Your task to perform on an android device: toggle sleep mode Image 0: 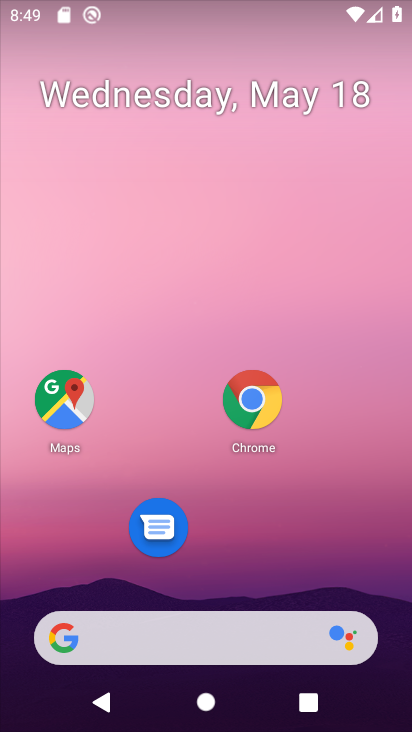
Step 0: drag from (267, 571) to (242, 51)
Your task to perform on an android device: toggle sleep mode Image 1: 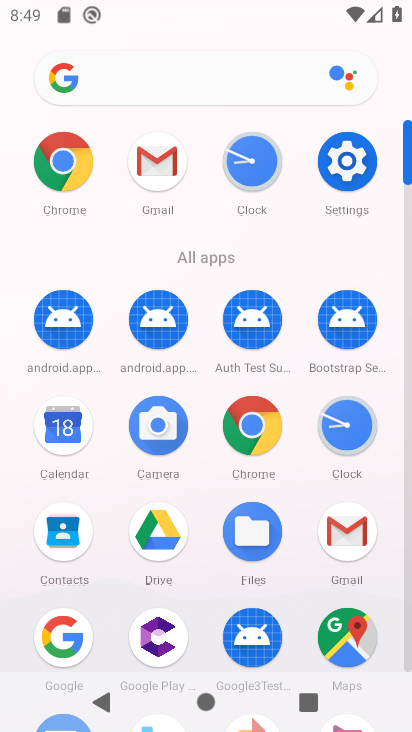
Step 1: click (333, 173)
Your task to perform on an android device: toggle sleep mode Image 2: 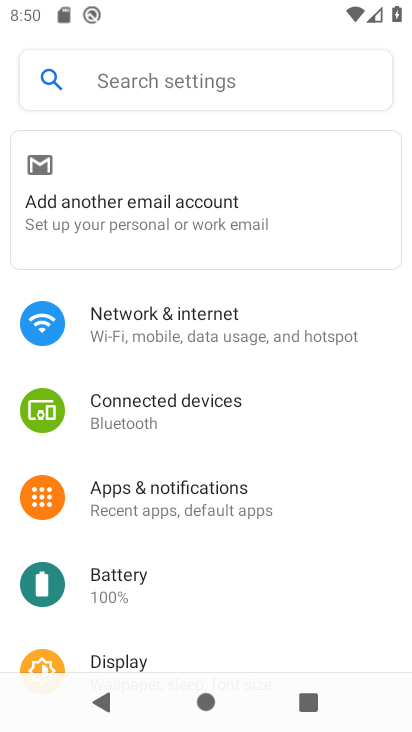
Step 2: task complete